Your task to perform on an android device: Turn off the flashlight Image 0: 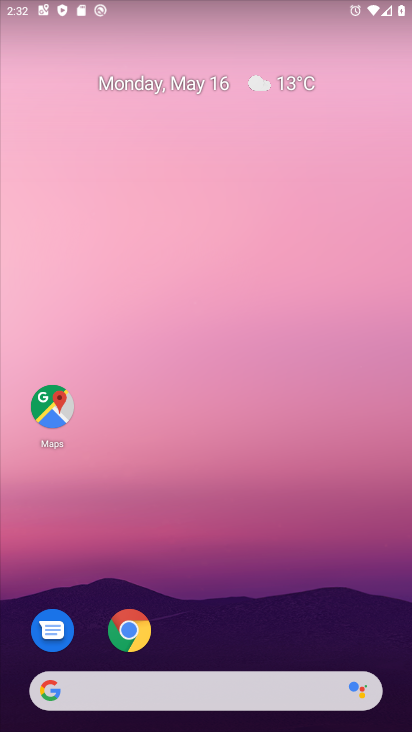
Step 0: drag from (276, 605) to (260, 23)
Your task to perform on an android device: Turn off the flashlight Image 1: 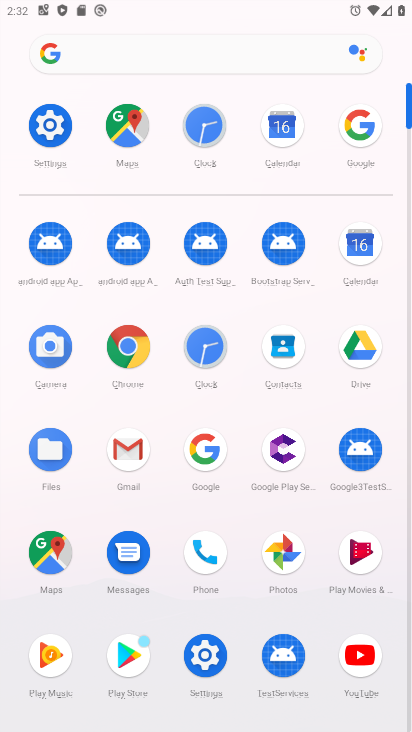
Step 1: click (43, 132)
Your task to perform on an android device: Turn off the flashlight Image 2: 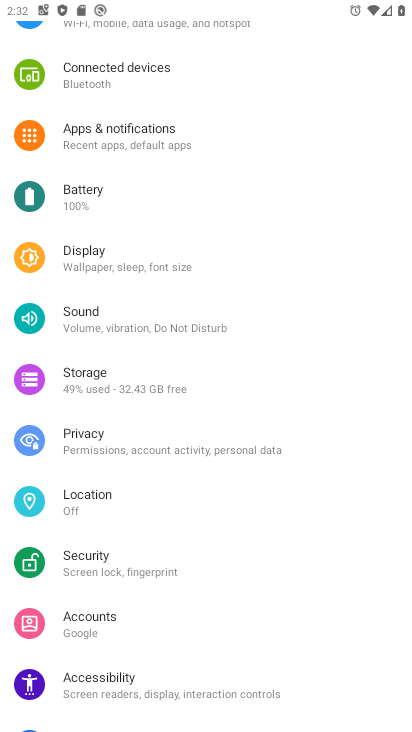
Step 2: drag from (156, 152) to (145, 475)
Your task to perform on an android device: Turn off the flashlight Image 3: 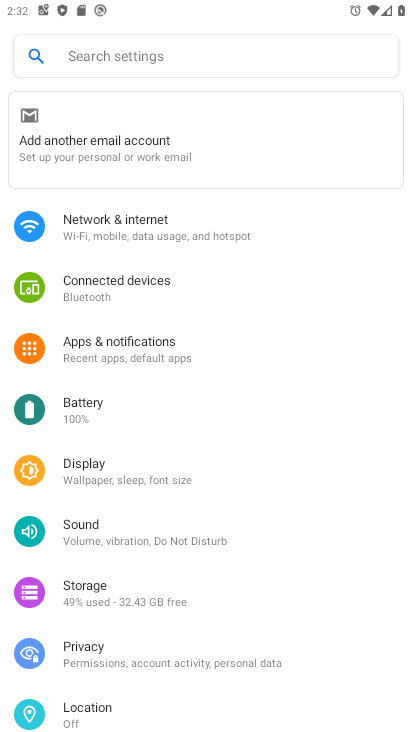
Step 3: click (93, 468)
Your task to perform on an android device: Turn off the flashlight Image 4: 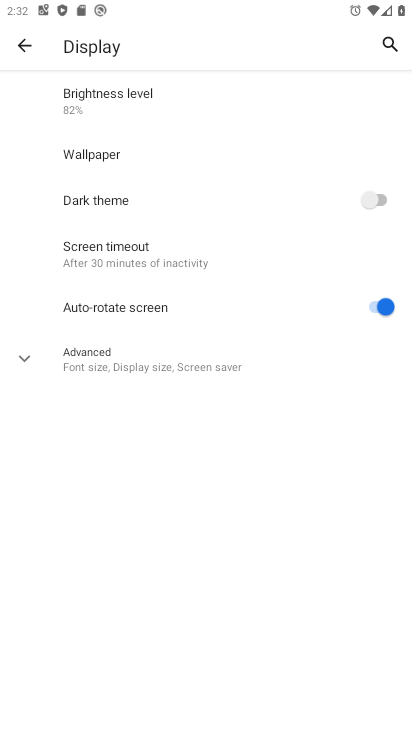
Step 4: click (144, 364)
Your task to perform on an android device: Turn off the flashlight Image 5: 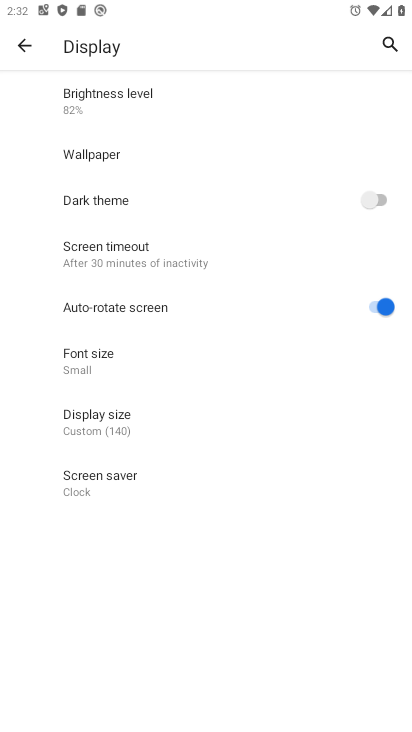
Step 5: task complete